Your task to perform on an android device: turn notification dots on Image 0: 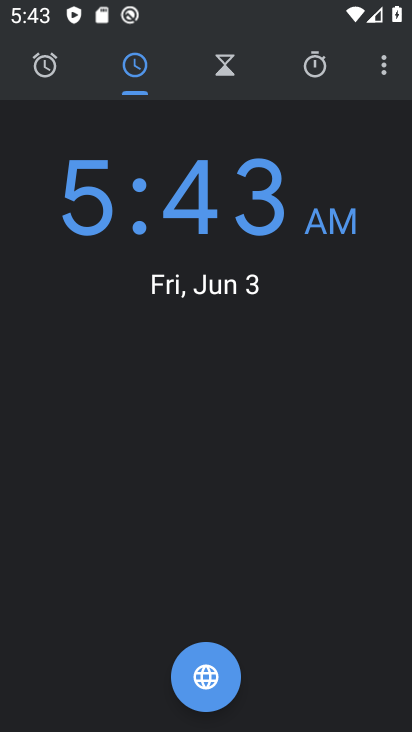
Step 0: press back button
Your task to perform on an android device: turn notification dots on Image 1: 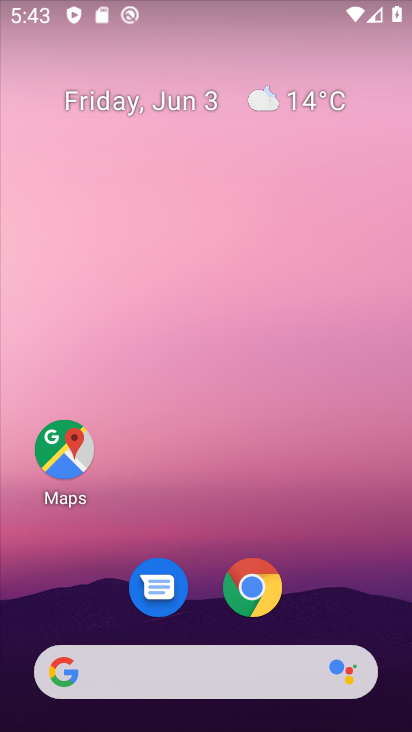
Step 1: drag from (323, 557) to (237, 55)
Your task to perform on an android device: turn notification dots on Image 2: 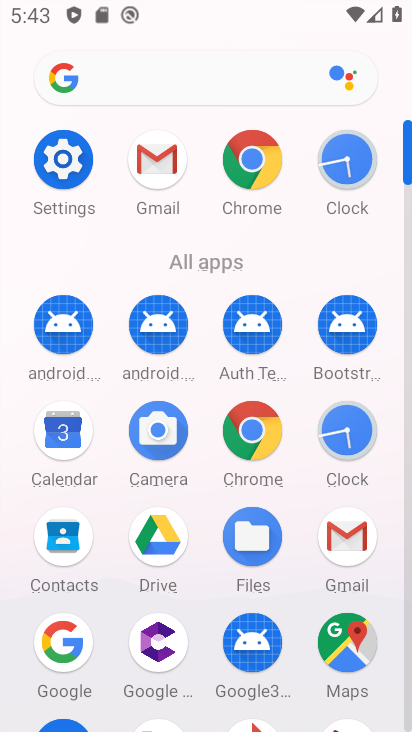
Step 2: drag from (5, 498) to (3, 219)
Your task to perform on an android device: turn notification dots on Image 3: 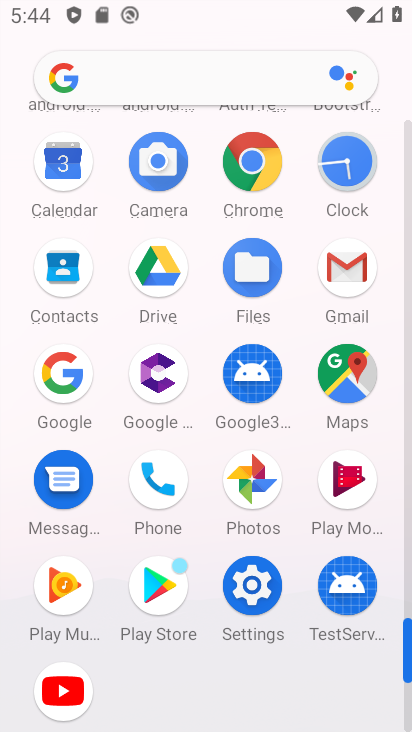
Step 3: click (254, 581)
Your task to perform on an android device: turn notification dots on Image 4: 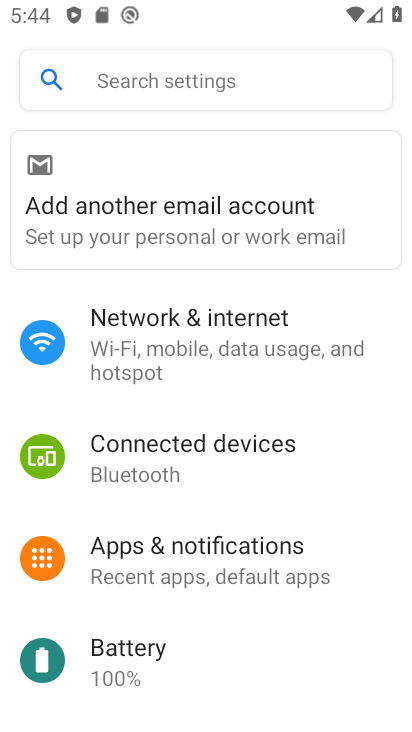
Step 4: click (321, 144)
Your task to perform on an android device: turn notification dots on Image 5: 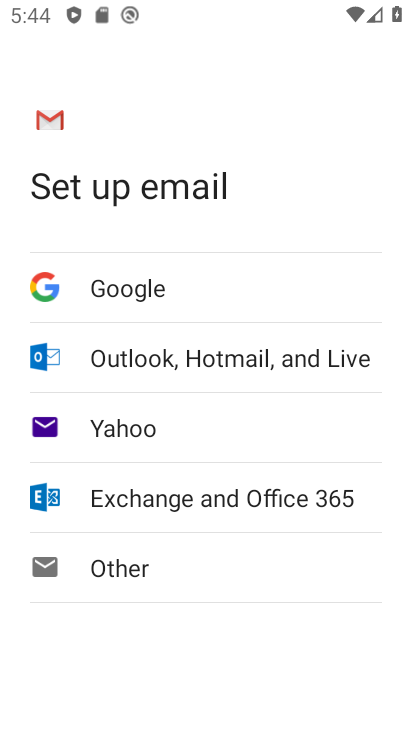
Step 5: press back button
Your task to perform on an android device: turn notification dots on Image 6: 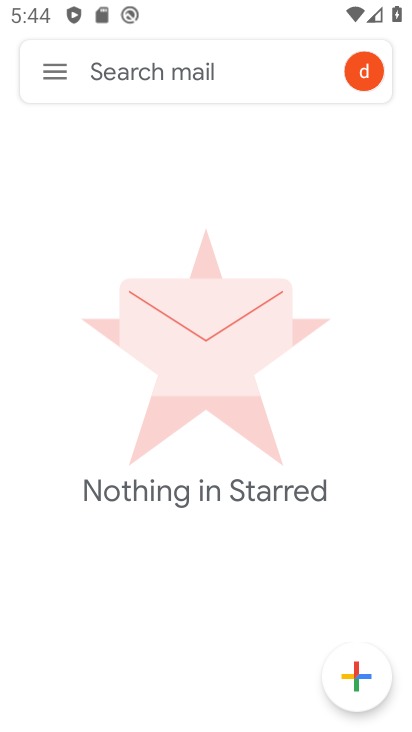
Step 6: click (50, 65)
Your task to perform on an android device: turn notification dots on Image 7: 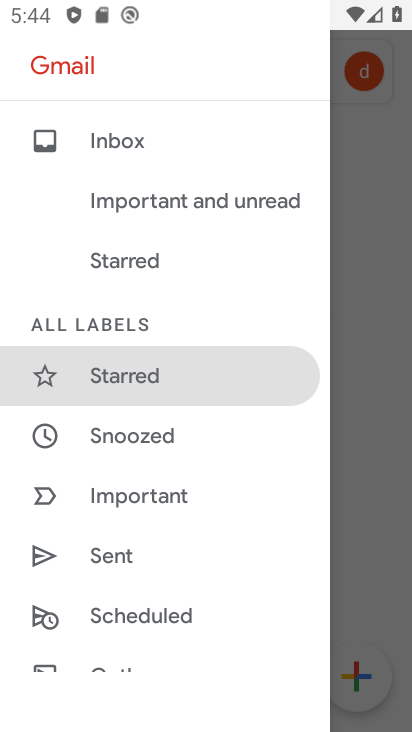
Step 7: click (230, 124)
Your task to perform on an android device: turn notification dots on Image 8: 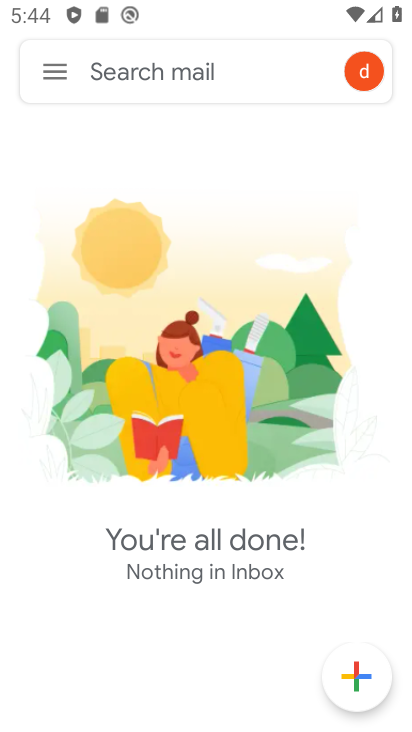
Step 8: click (52, 64)
Your task to perform on an android device: turn notification dots on Image 9: 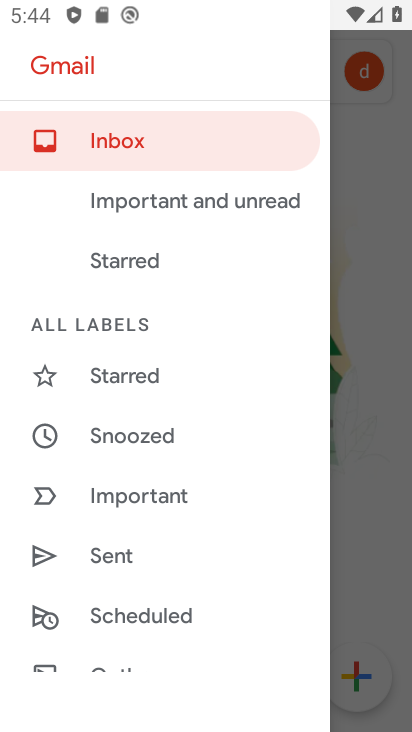
Step 9: drag from (176, 571) to (214, 187)
Your task to perform on an android device: turn notification dots on Image 10: 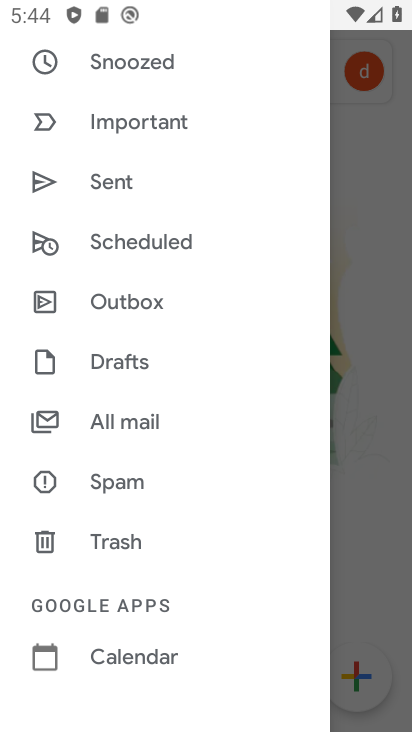
Step 10: drag from (191, 575) to (192, 256)
Your task to perform on an android device: turn notification dots on Image 11: 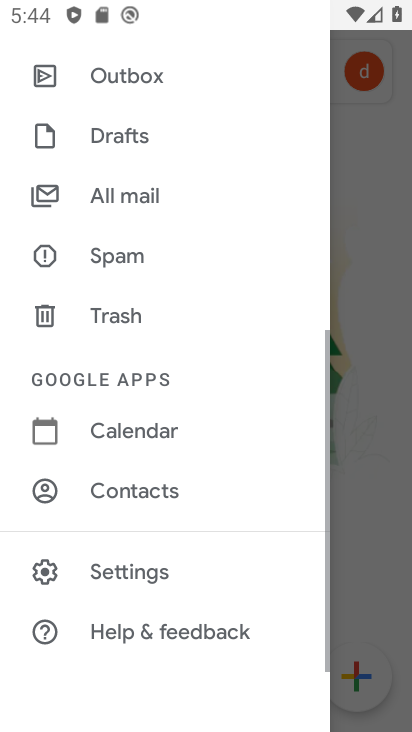
Step 11: drag from (160, 590) to (173, 258)
Your task to perform on an android device: turn notification dots on Image 12: 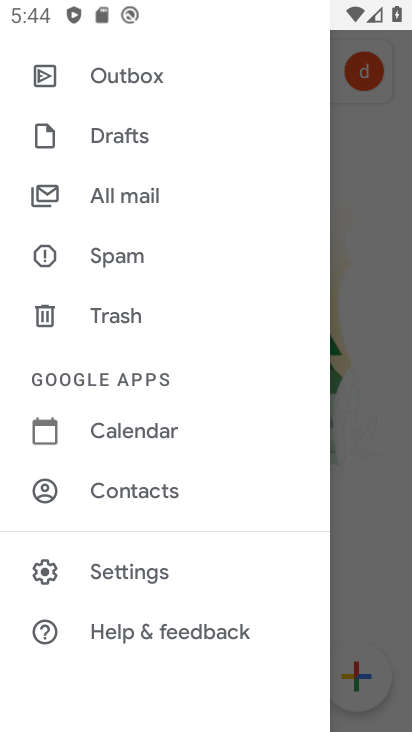
Step 12: click (117, 578)
Your task to perform on an android device: turn notification dots on Image 13: 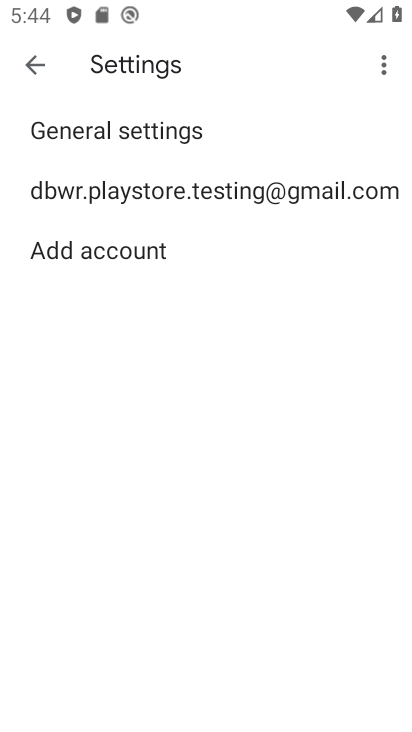
Step 13: click (207, 187)
Your task to perform on an android device: turn notification dots on Image 14: 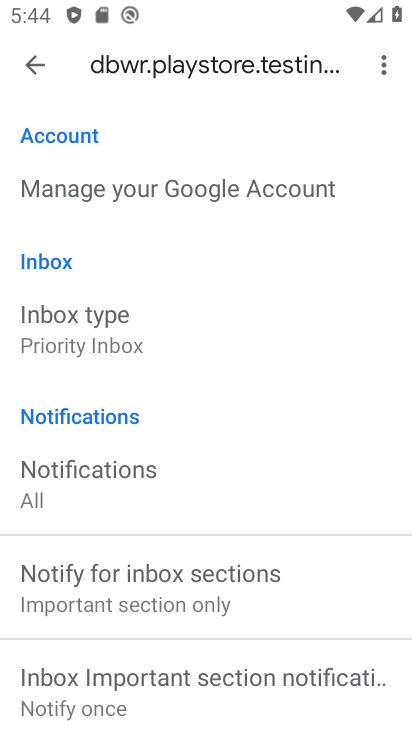
Step 14: drag from (268, 594) to (287, 219)
Your task to perform on an android device: turn notification dots on Image 15: 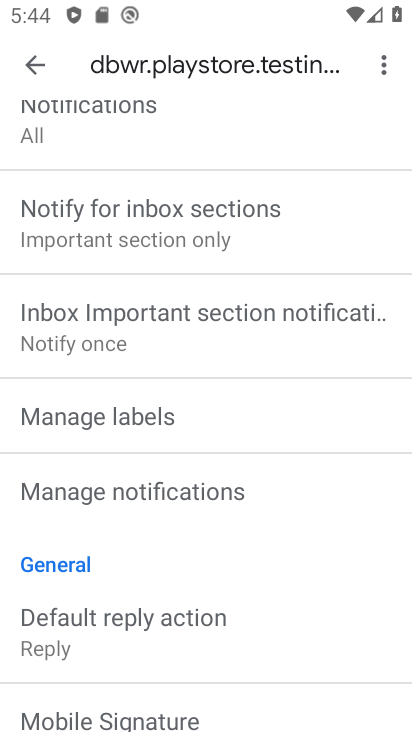
Step 15: drag from (236, 563) to (294, 149)
Your task to perform on an android device: turn notification dots on Image 16: 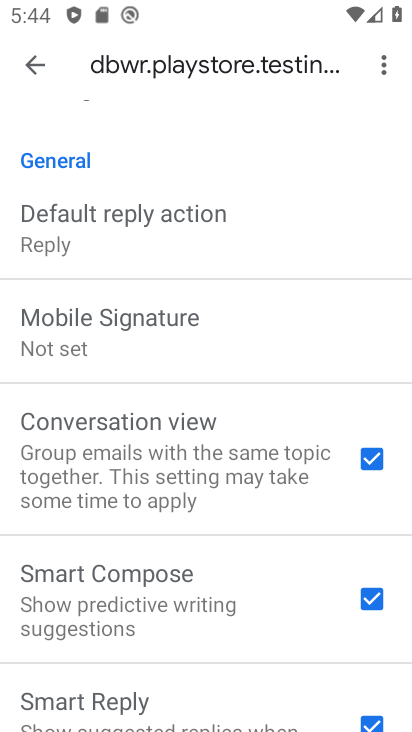
Step 16: drag from (289, 153) to (240, 462)
Your task to perform on an android device: turn notification dots on Image 17: 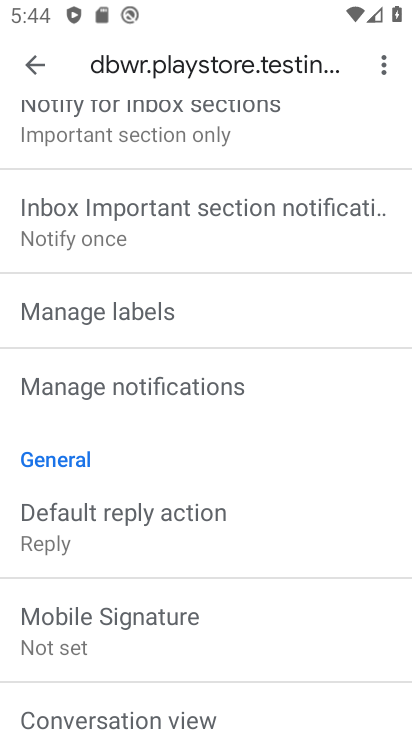
Step 17: click (183, 387)
Your task to perform on an android device: turn notification dots on Image 18: 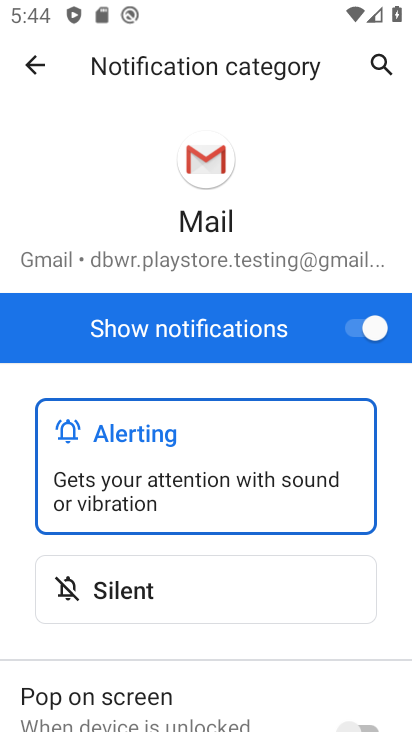
Step 18: drag from (246, 561) to (282, 231)
Your task to perform on an android device: turn notification dots on Image 19: 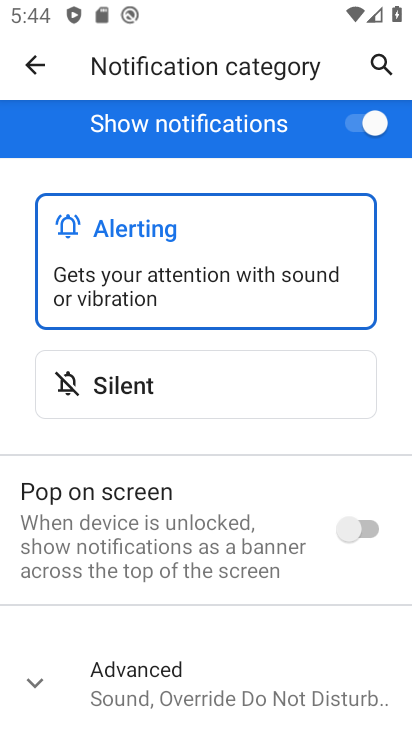
Step 19: click (49, 680)
Your task to perform on an android device: turn notification dots on Image 20: 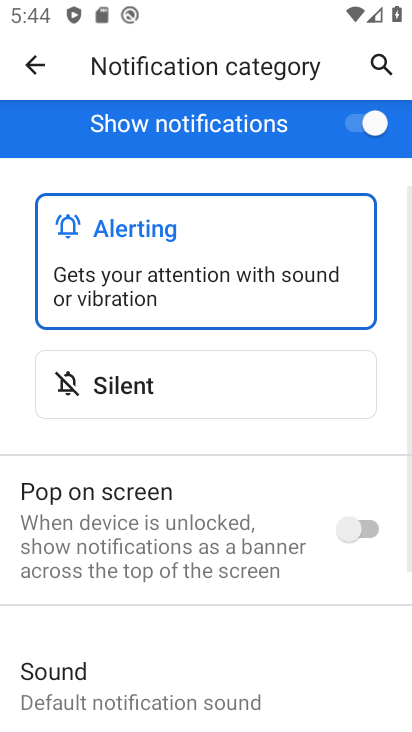
Step 20: task complete